Your task to perform on an android device: turn on showing notifications on the lock screen Image 0: 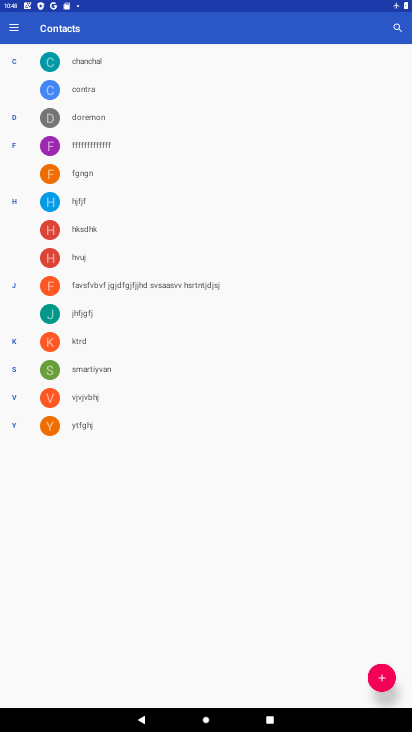
Step 0: press home button
Your task to perform on an android device: turn on showing notifications on the lock screen Image 1: 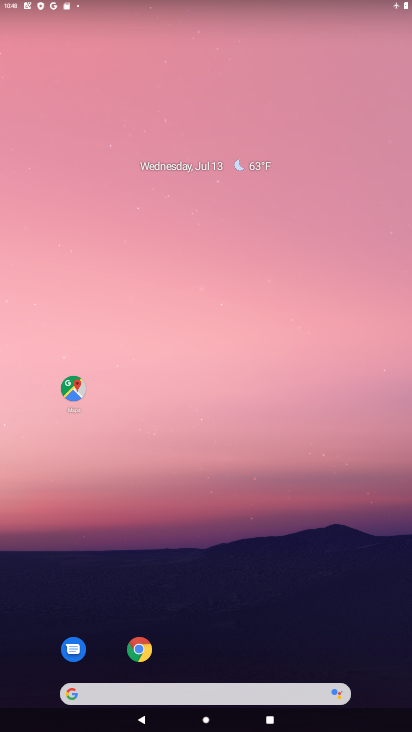
Step 1: drag from (287, 613) to (271, 262)
Your task to perform on an android device: turn on showing notifications on the lock screen Image 2: 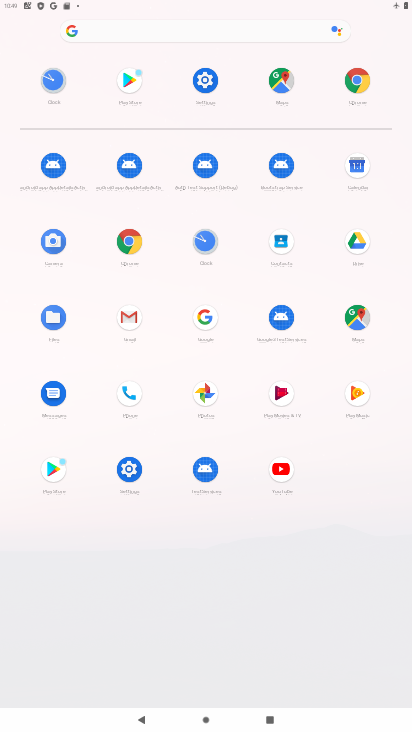
Step 2: click (208, 75)
Your task to perform on an android device: turn on showing notifications on the lock screen Image 3: 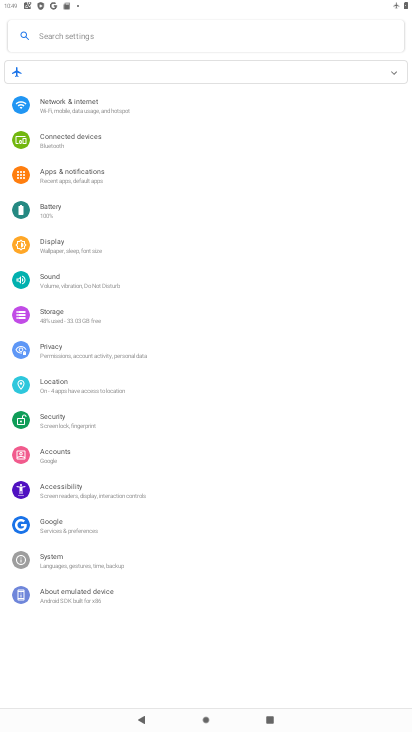
Step 3: click (88, 167)
Your task to perform on an android device: turn on showing notifications on the lock screen Image 4: 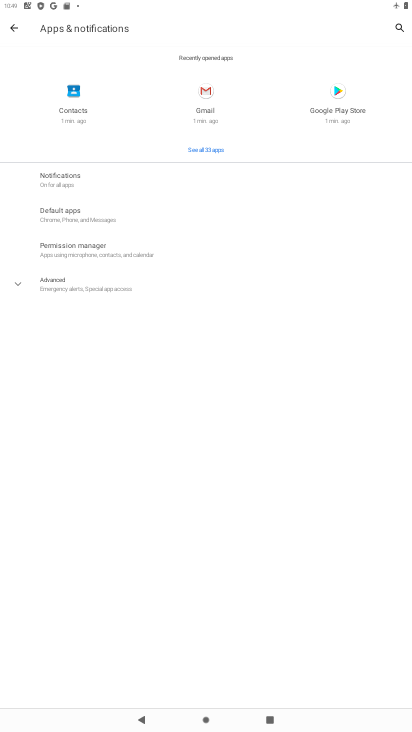
Step 4: click (87, 182)
Your task to perform on an android device: turn on showing notifications on the lock screen Image 5: 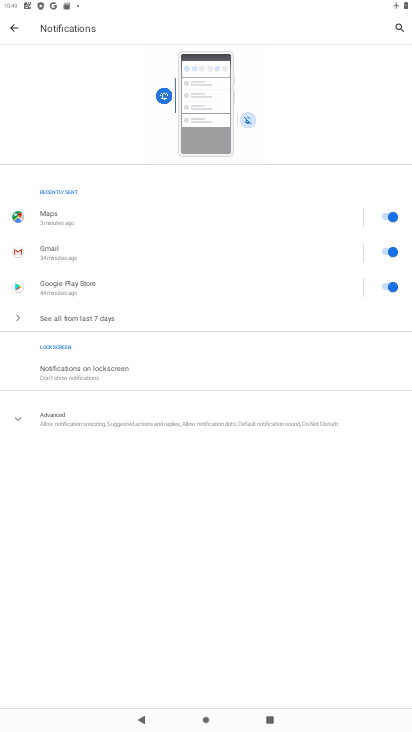
Step 5: click (153, 368)
Your task to perform on an android device: turn on showing notifications on the lock screen Image 6: 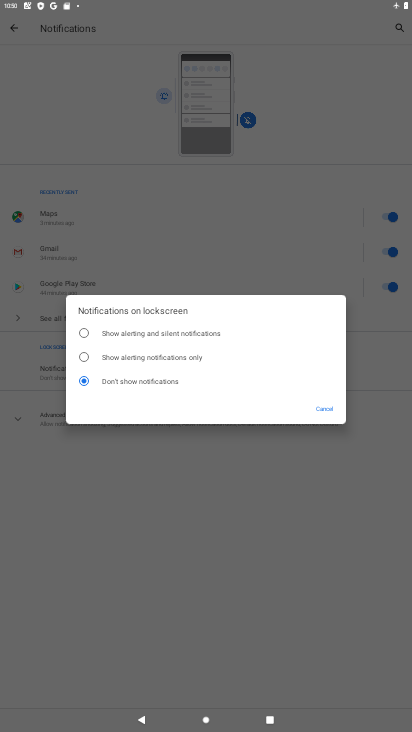
Step 6: task complete